Your task to perform on an android device: visit the assistant section in the google photos Image 0: 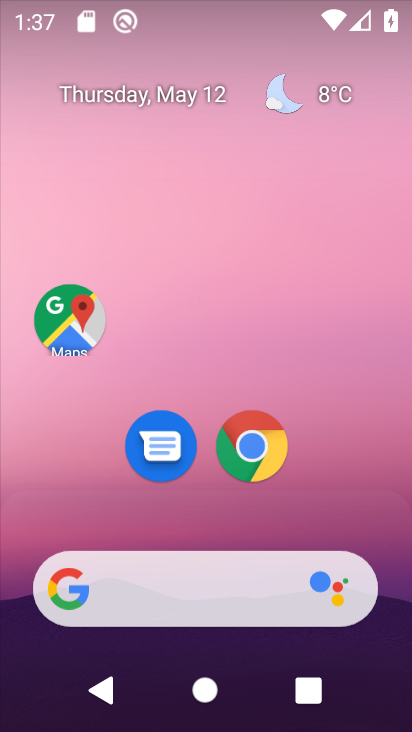
Step 0: drag from (218, 548) to (302, 22)
Your task to perform on an android device: visit the assistant section in the google photos Image 1: 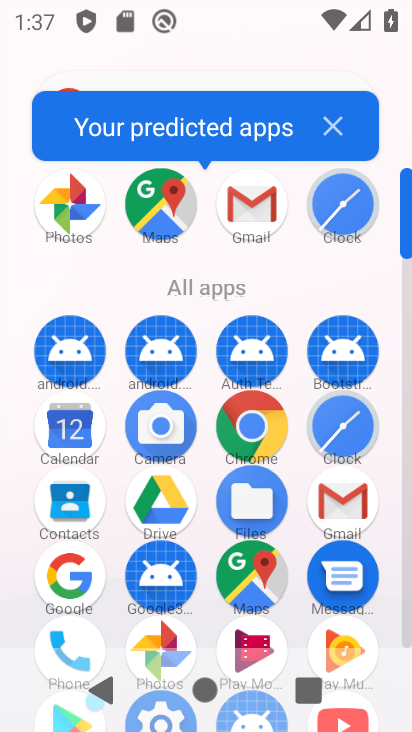
Step 1: click (69, 198)
Your task to perform on an android device: visit the assistant section in the google photos Image 2: 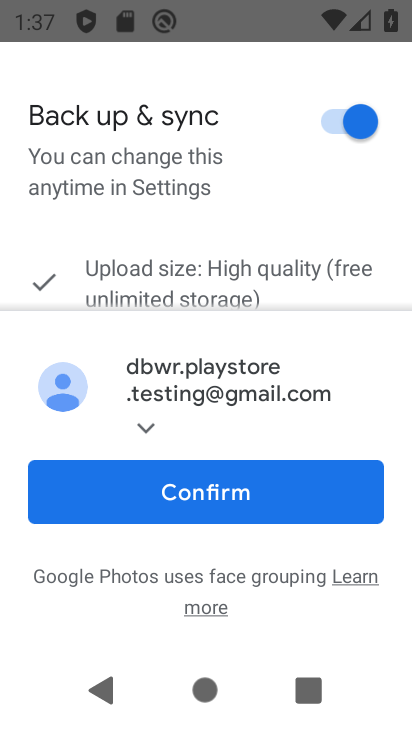
Step 2: click (200, 483)
Your task to perform on an android device: visit the assistant section in the google photos Image 3: 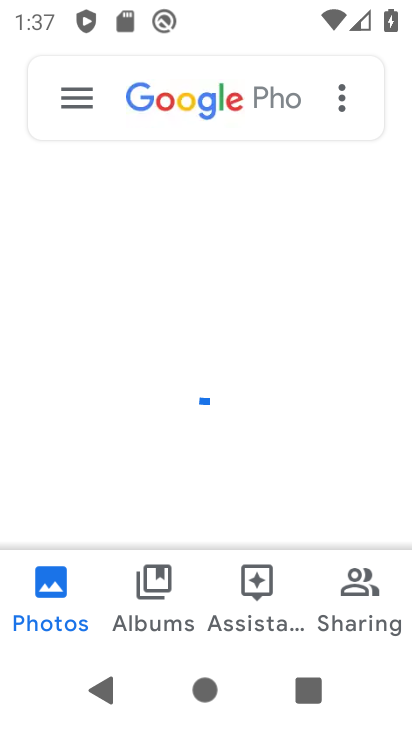
Step 3: click (271, 606)
Your task to perform on an android device: visit the assistant section in the google photos Image 4: 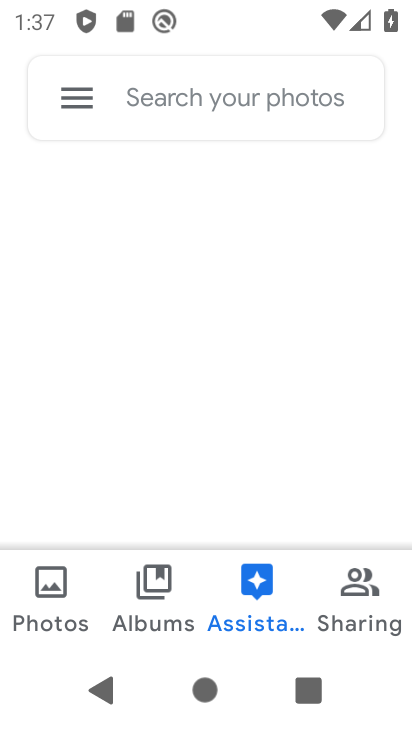
Step 4: task complete